Your task to perform on an android device: Open settings on Google Maps Image 0: 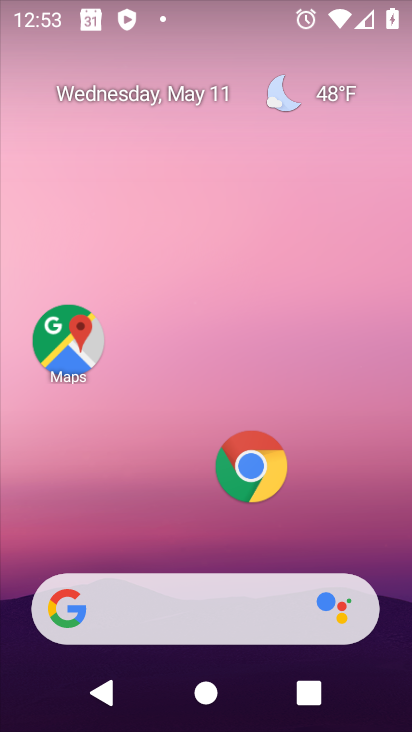
Step 0: click (53, 331)
Your task to perform on an android device: Open settings on Google Maps Image 1: 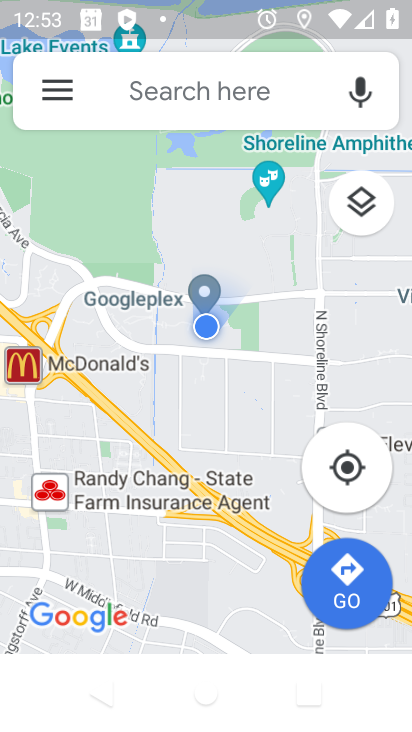
Step 1: task complete